Your task to perform on an android device: toggle priority inbox in the gmail app Image 0: 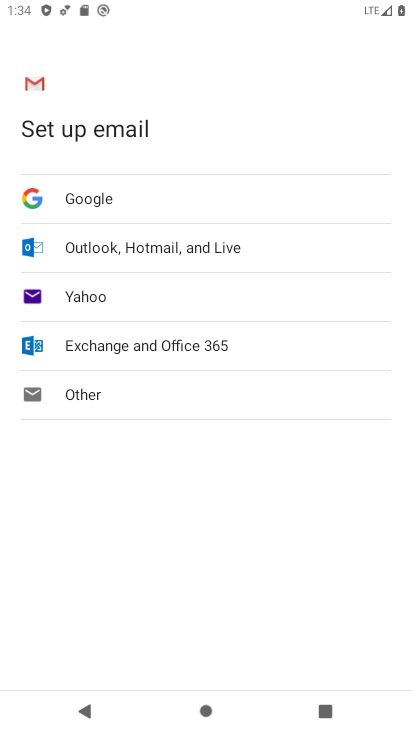
Step 0: press home button
Your task to perform on an android device: toggle priority inbox in the gmail app Image 1: 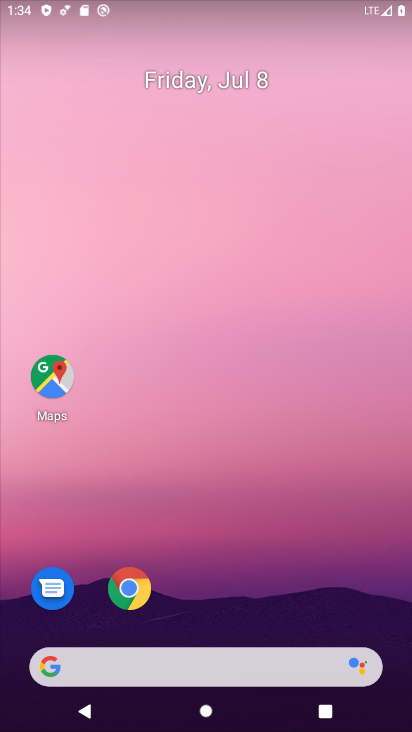
Step 1: drag from (272, 572) to (242, 33)
Your task to perform on an android device: toggle priority inbox in the gmail app Image 2: 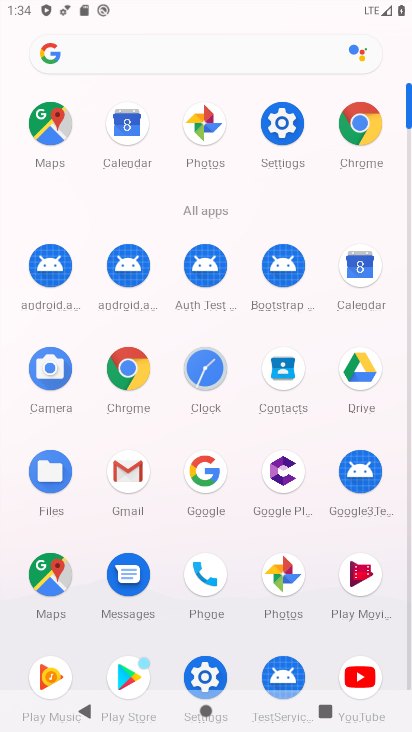
Step 2: click (130, 469)
Your task to perform on an android device: toggle priority inbox in the gmail app Image 3: 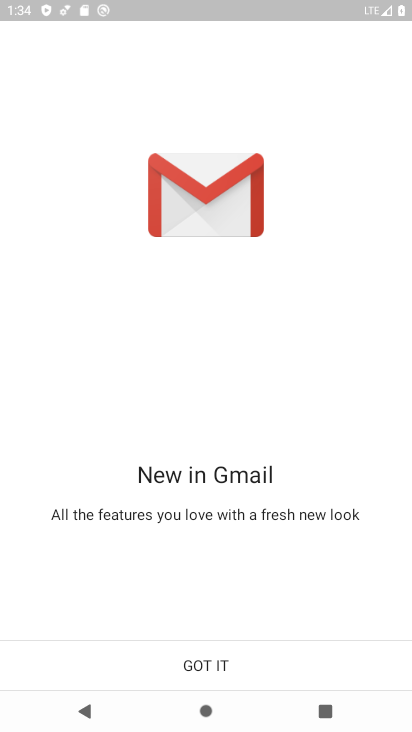
Step 3: click (212, 671)
Your task to perform on an android device: toggle priority inbox in the gmail app Image 4: 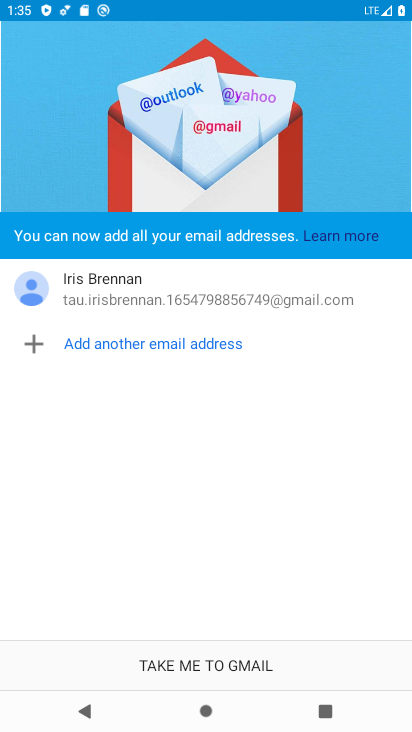
Step 4: click (166, 296)
Your task to perform on an android device: toggle priority inbox in the gmail app Image 5: 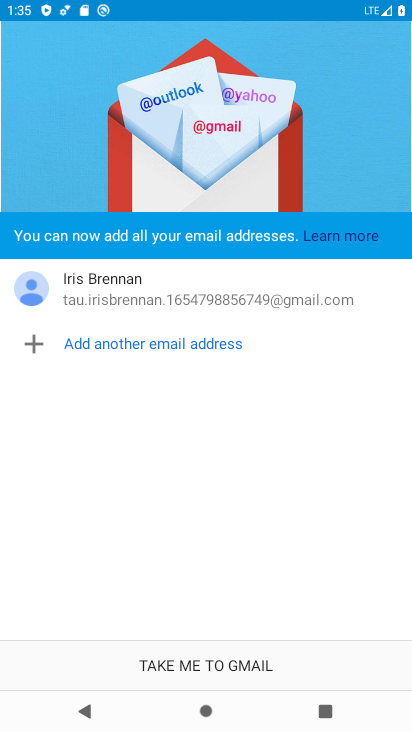
Step 5: click (191, 657)
Your task to perform on an android device: toggle priority inbox in the gmail app Image 6: 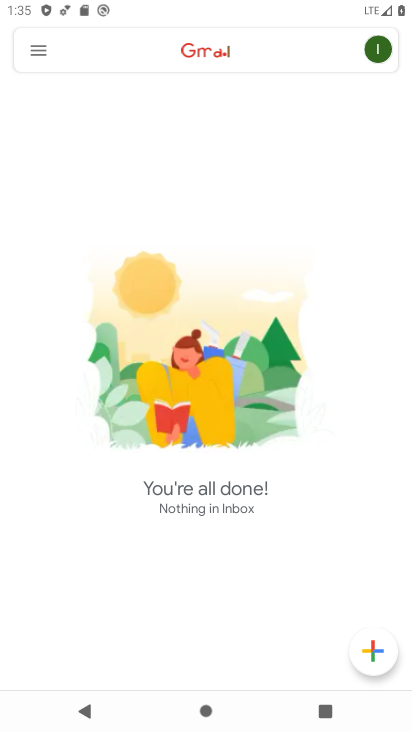
Step 6: click (37, 51)
Your task to perform on an android device: toggle priority inbox in the gmail app Image 7: 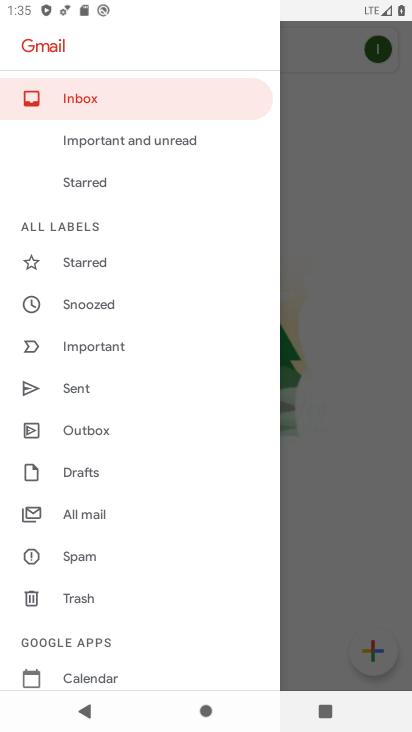
Step 7: drag from (136, 637) to (183, 336)
Your task to perform on an android device: toggle priority inbox in the gmail app Image 8: 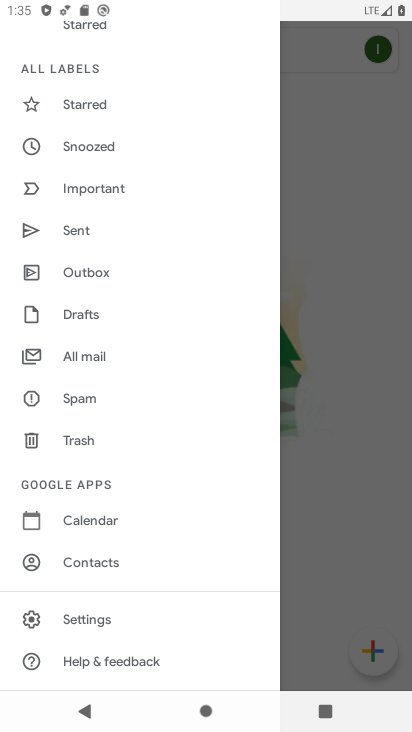
Step 8: click (86, 622)
Your task to perform on an android device: toggle priority inbox in the gmail app Image 9: 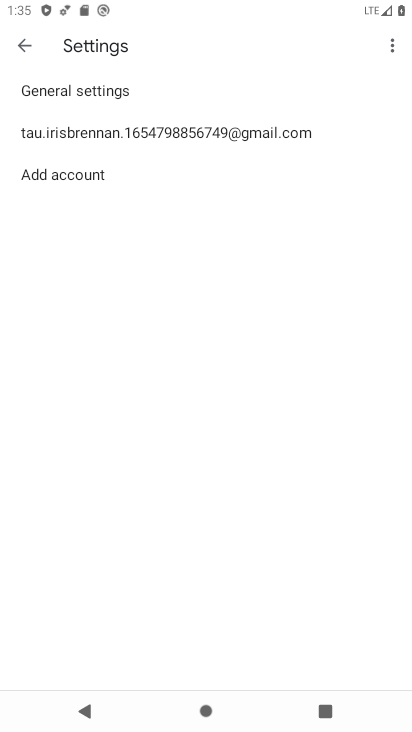
Step 9: click (96, 132)
Your task to perform on an android device: toggle priority inbox in the gmail app Image 10: 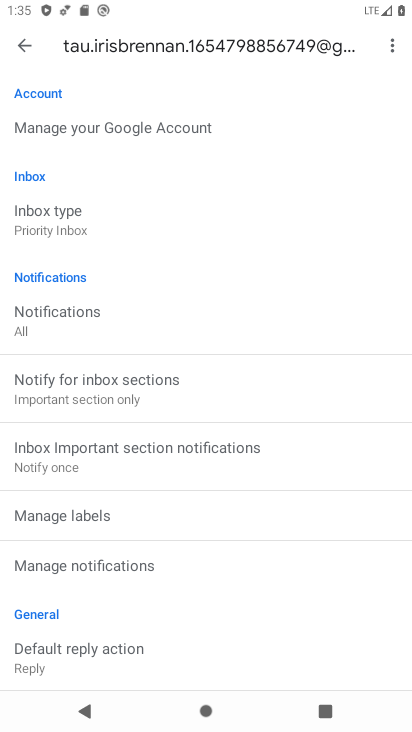
Step 10: click (64, 227)
Your task to perform on an android device: toggle priority inbox in the gmail app Image 11: 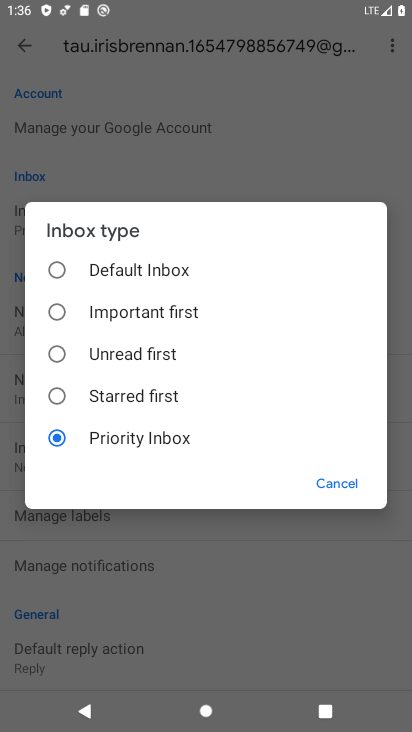
Step 11: click (55, 266)
Your task to perform on an android device: toggle priority inbox in the gmail app Image 12: 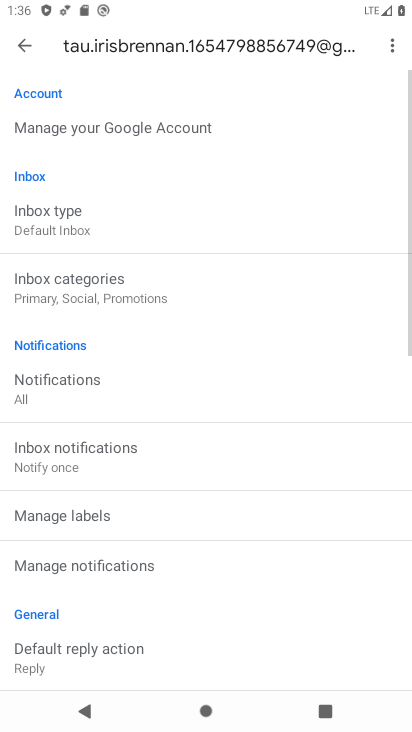
Step 12: task complete